Your task to perform on an android device: turn off location Image 0: 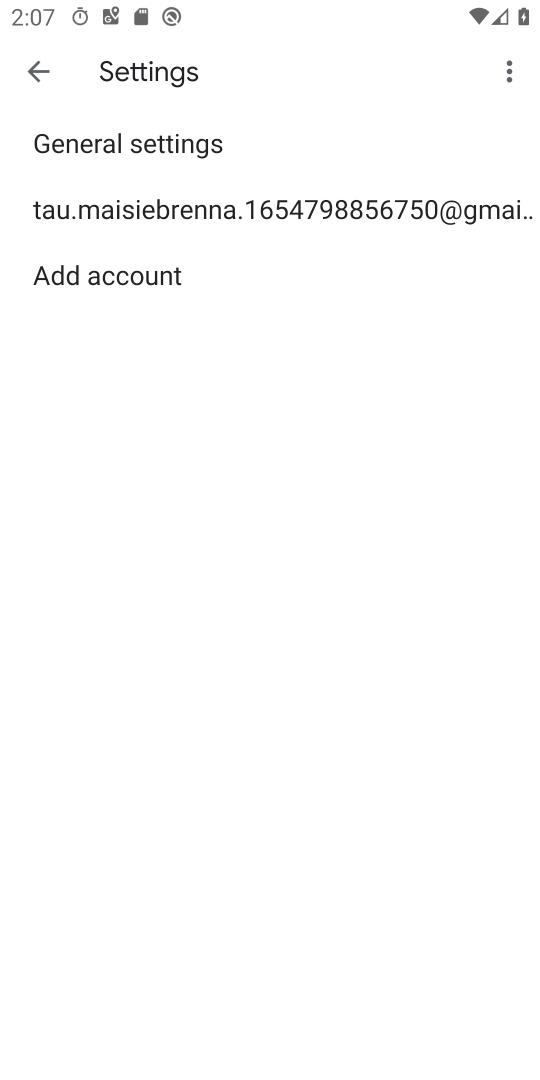
Step 0: press home button
Your task to perform on an android device: turn off location Image 1: 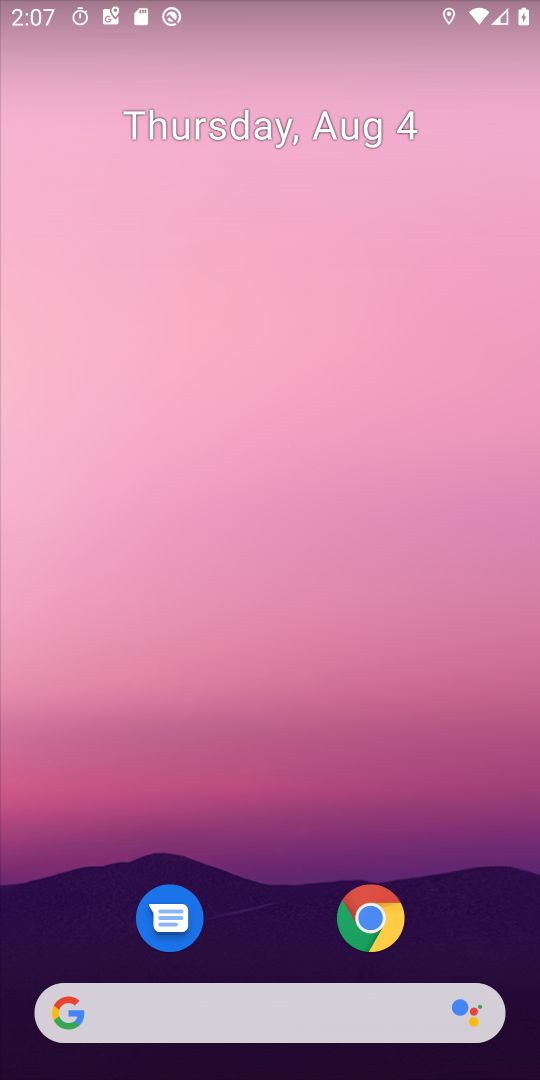
Step 1: drag from (288, 924) to (238, 443)
Your task to perform on an android device: turn off location Image 2: 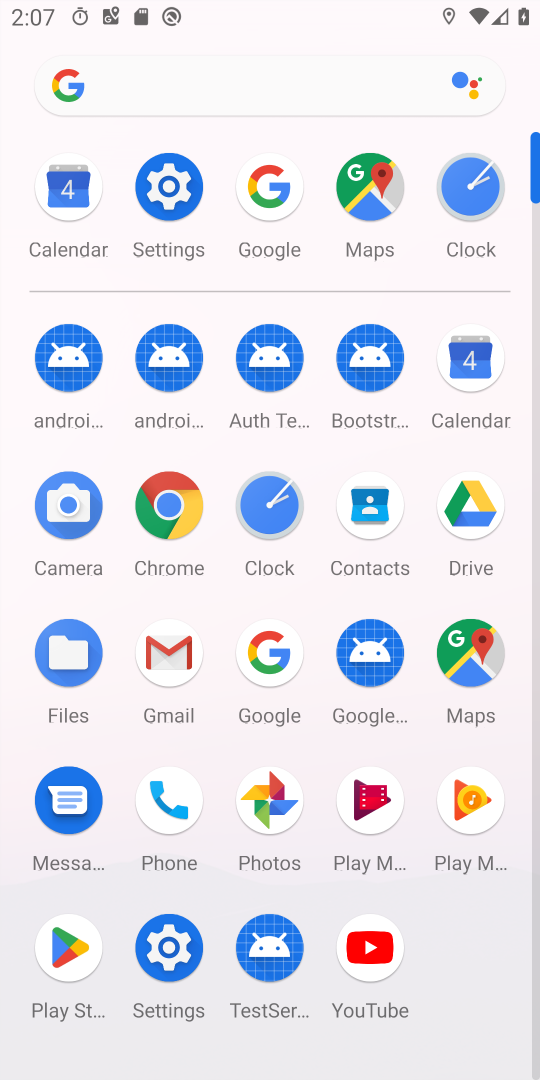
Step 2: click (172, 198)
Your task to perform on an android device: turn off location Image 3: 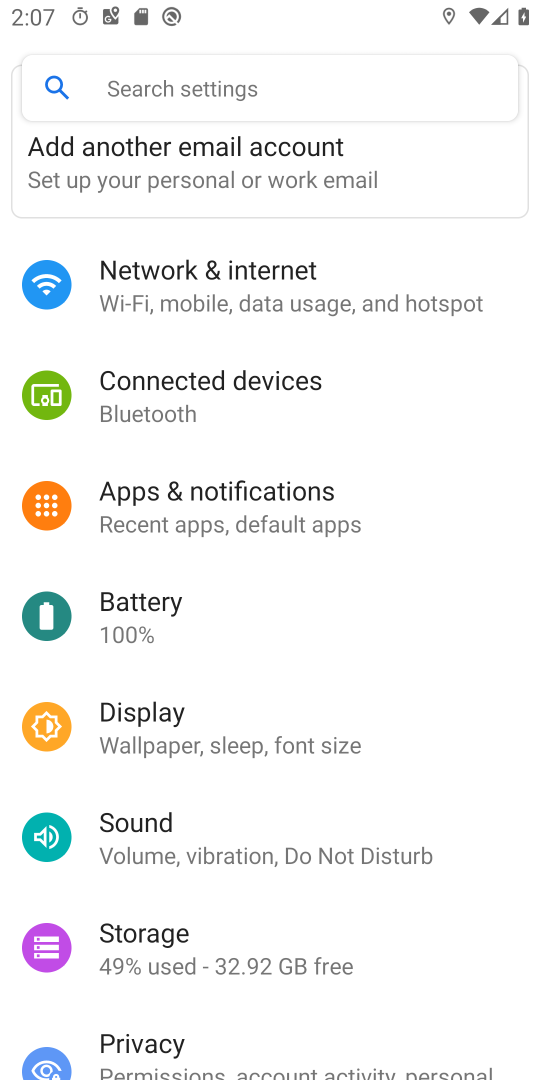
Step 3: drag from (233, 878) to (249, 401)
Your task to perform on an android device: turn off location Image 4: 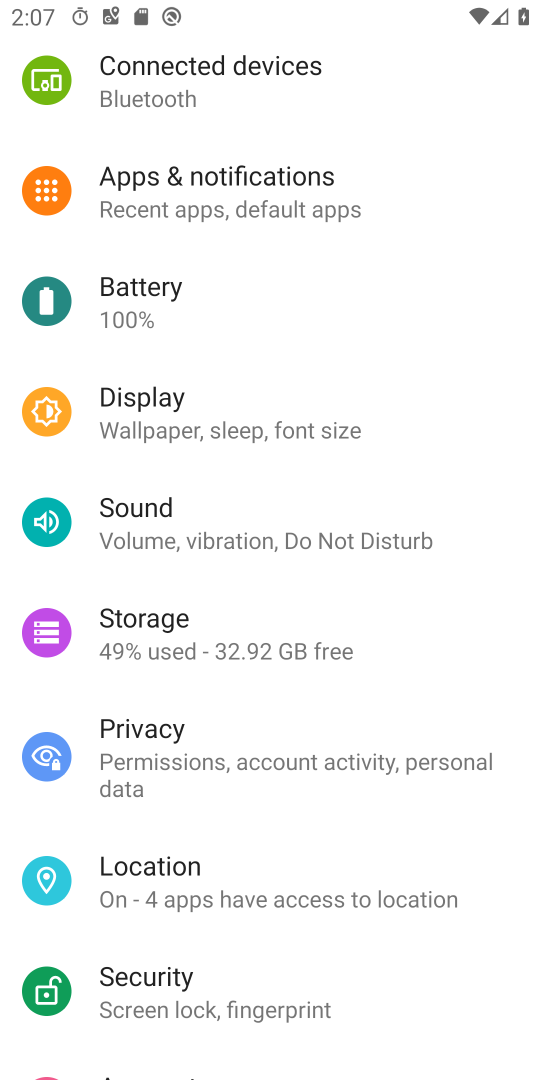
Step 4: click (182, 857)
Your task to perform on an android device: turn off location Image 5: 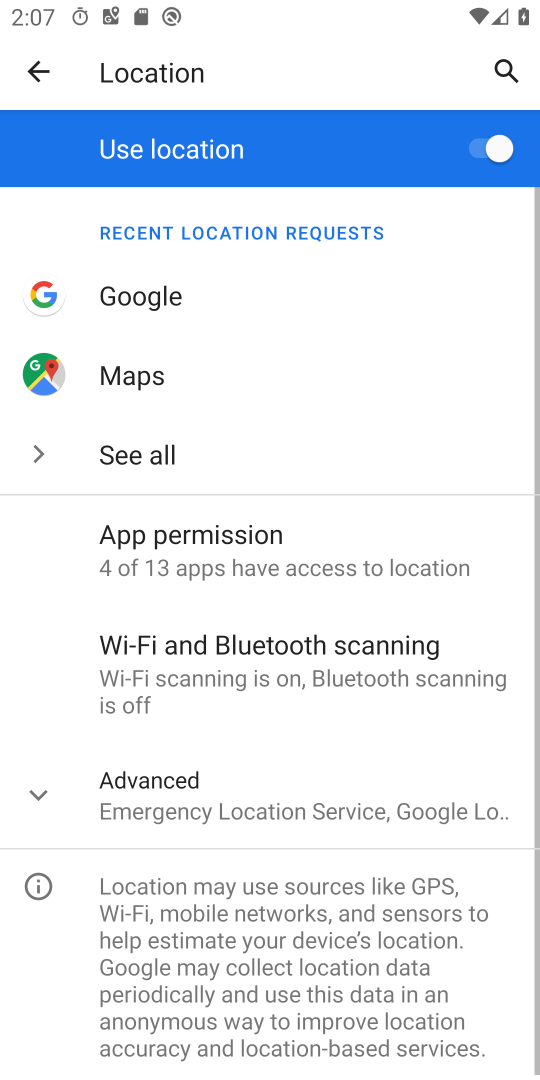
Step 5: click (469, 147)
Your task to perform on an android device: turn off location Image 6: 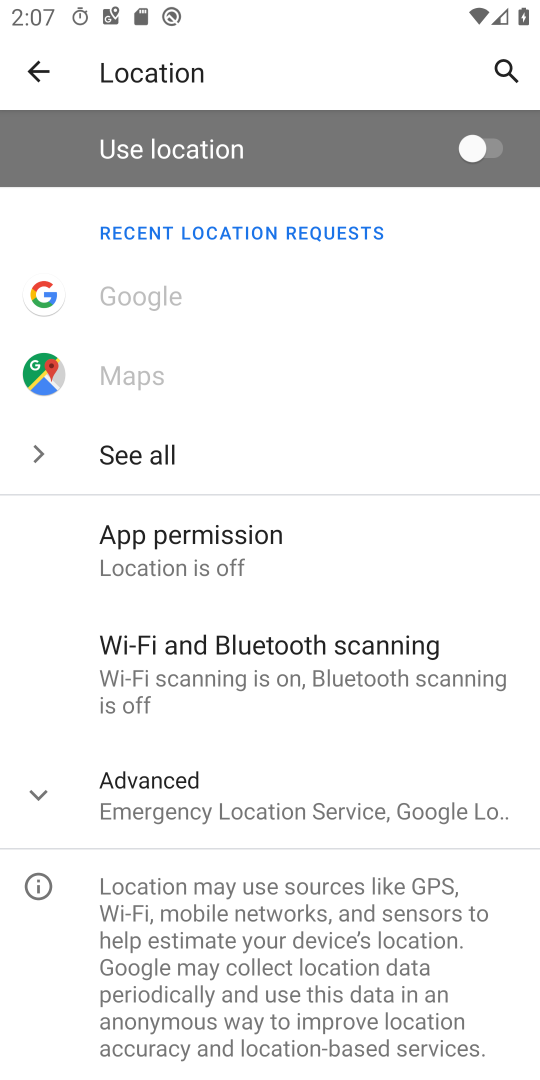
Step 6: task complete